Your task to perform on an android device: turn off sleep mode Image 0: 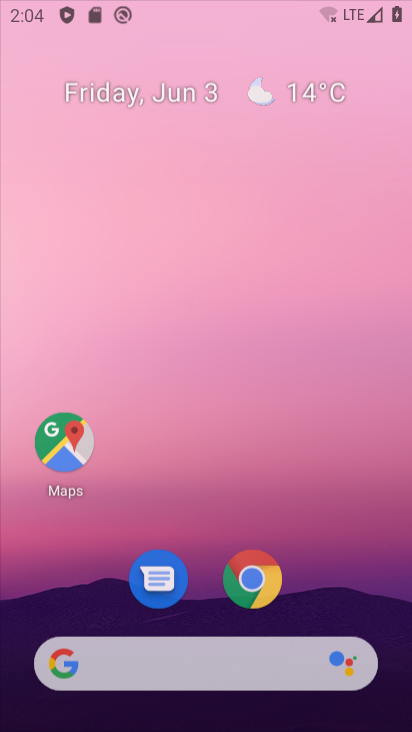
Step 0: click (278, 91)
Your task to perform on an android device: turn off sleep mode Image 1: 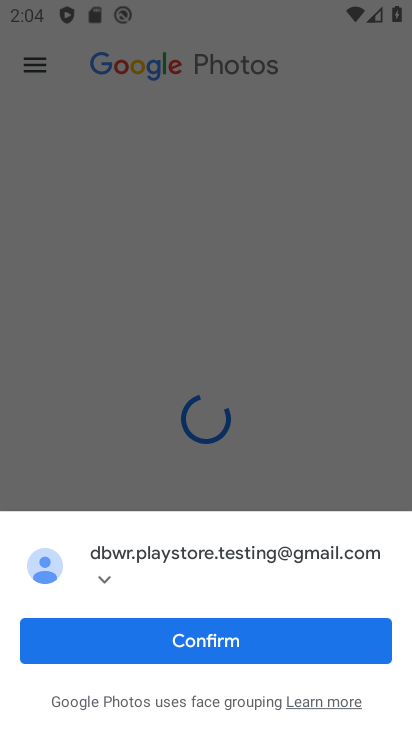
Step 1: press back button
Your task to perform on an android device: turn off sleep mode Image 2: 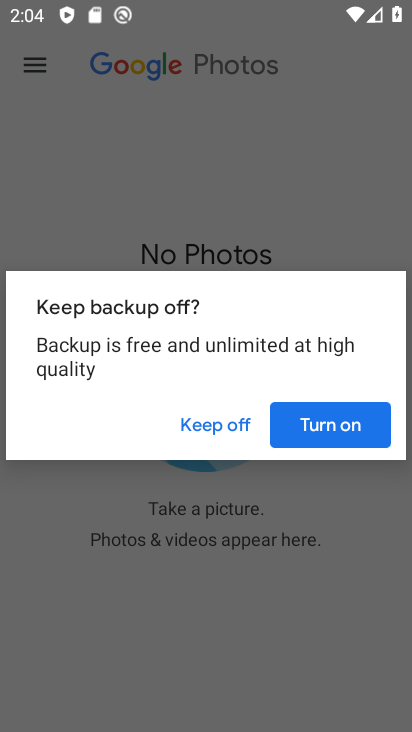
Step 2: press back button
Your task to perform on an android device: turn off sleep mode Image 3: 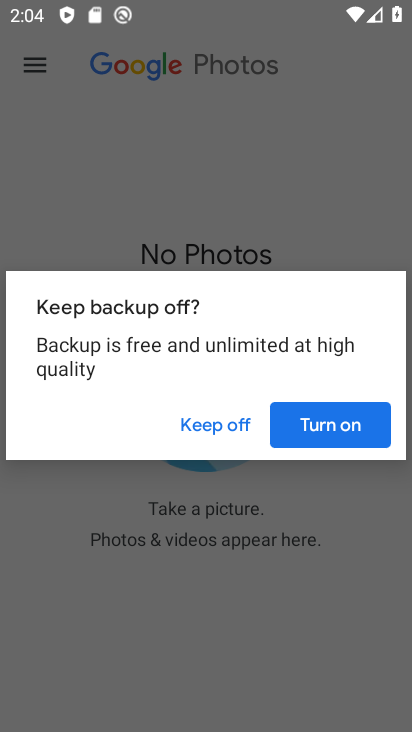
Step 3: press home button
Your task to perform on an android device: turn off sleep mode Image 4: 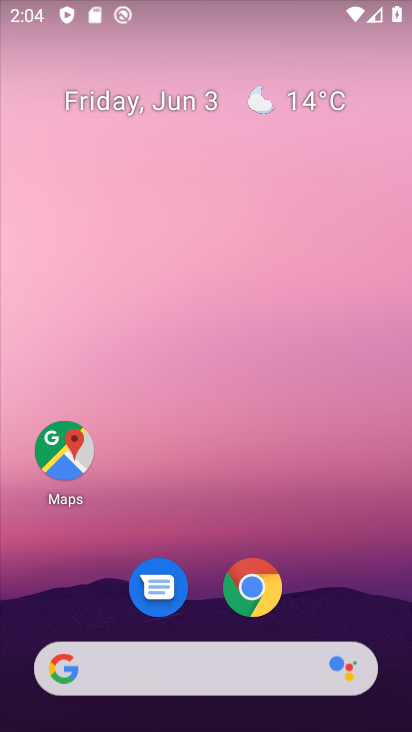
Step 4: drag from (202, 604) to (265, 76)
Your task to perform on an android device: turn off sleep mode Image 5: 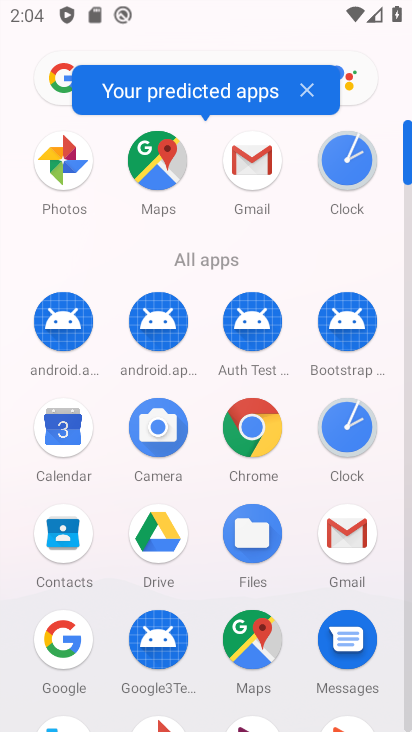
Step 5: drag from (184, 613) to (248, 122)
Your task to perform on an android device: turn off sleep mode Image 6: 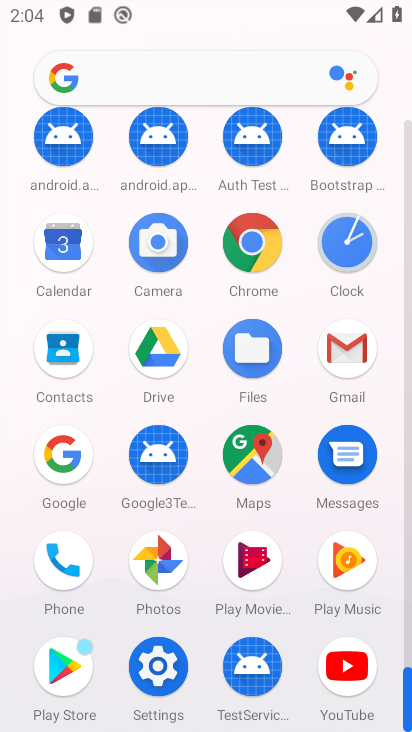
Step 6: click (153, 668)
Your task to perform on an android device: turn off sleep mode Image 7: 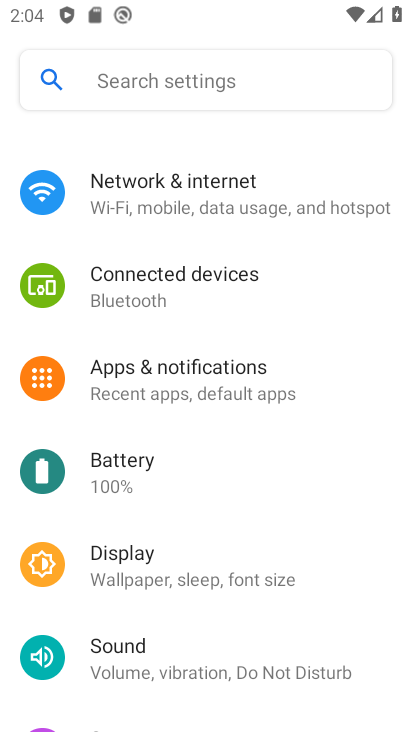
Step 7: click (111, 72)
Your task to perform on an android device: turn off sleep mode Image 8: 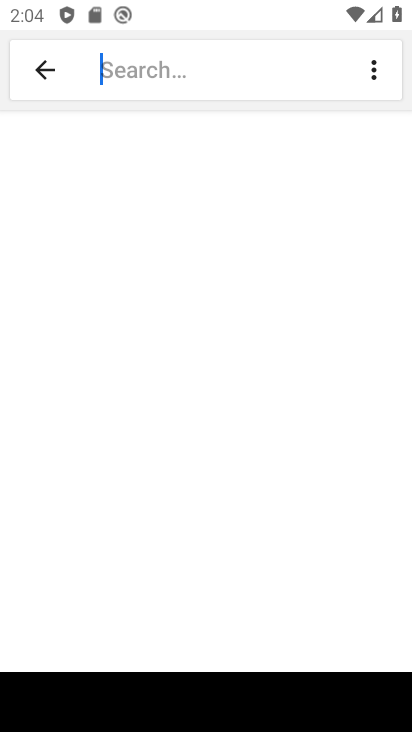
Step 8: type "sleep m ode"
Your task to perform on an android device: turn off sleep mode Image 9: 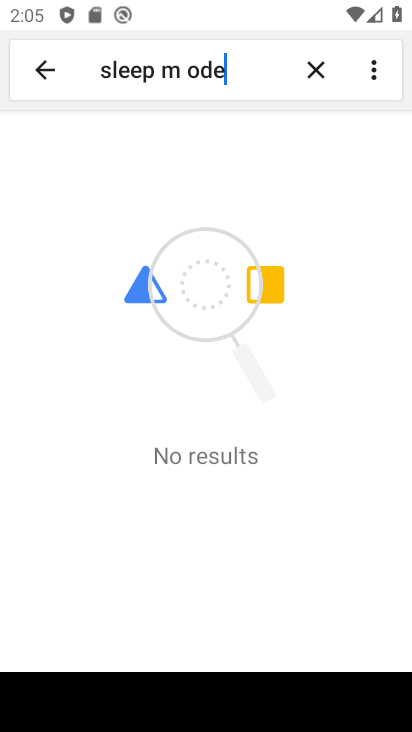
Step 9: task complete